Your task to perform on an android device: Open Google Image 0: 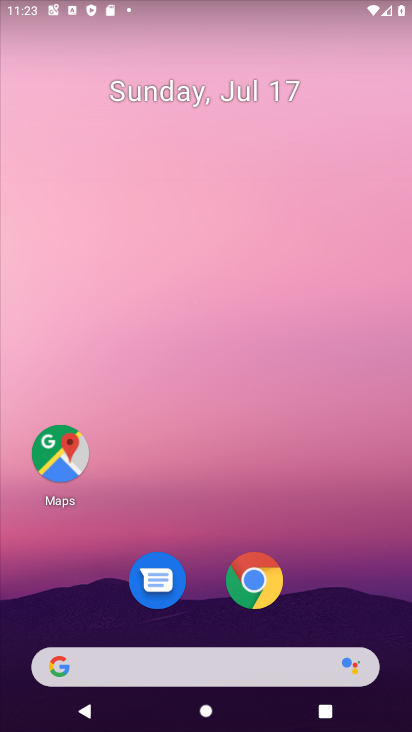
Step 0: drag from (241, 619) to (227, 218)
Your task to perform on an android device: Open Google Image 1: 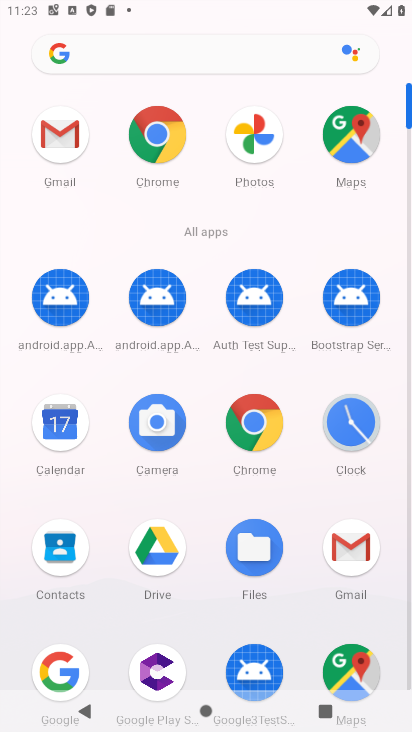
Step 1: drag from (204, 495) to (190, 279)
Your task to perform on an android device: Open Google Image 2: 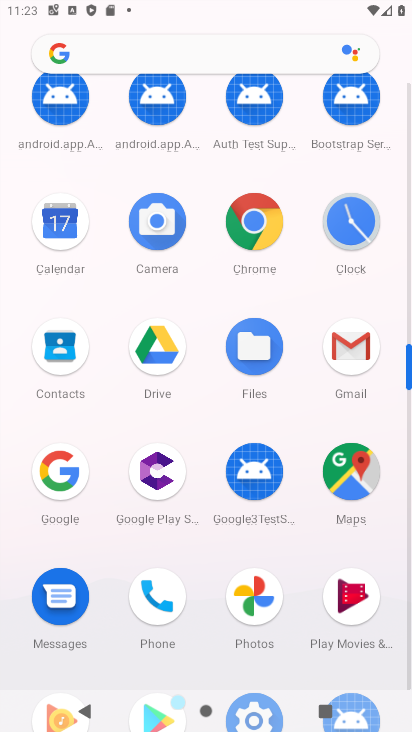
Step 2: click (73, 488)
Your task to perform on an android device: Open Google Image 3: 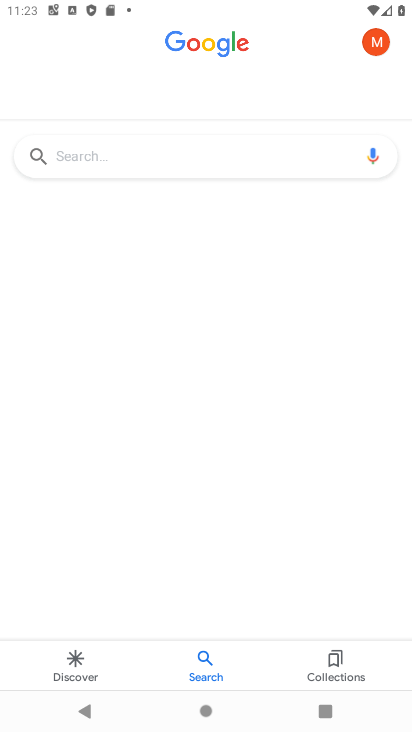
Step 3: task complete